Your task to perform on an android device: Go to accessibility settings Image 0: 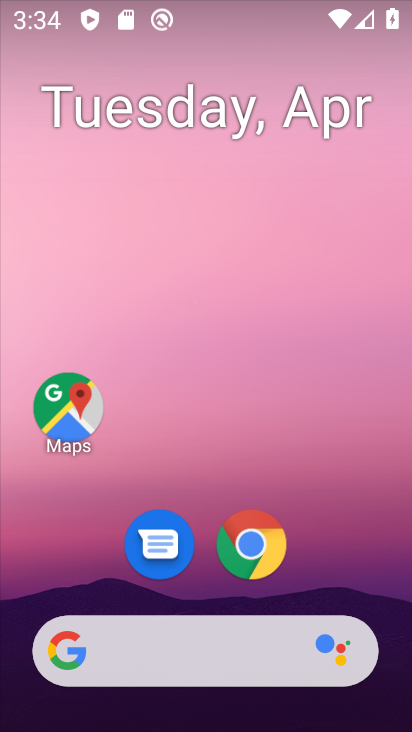
Step 0: drag from (305, 576) to (326, 60)
Your task to perform on an android device: Go to accessibility settings Image 1: 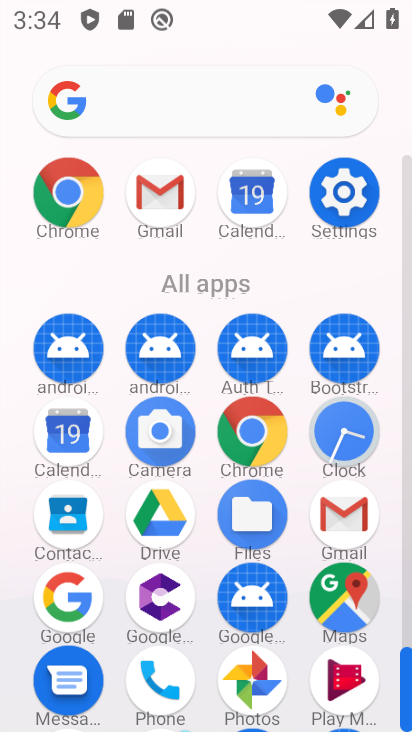
Step 1: click (340, 201)
Your task to perform on an android device: Go to accessibility settings Image 2: 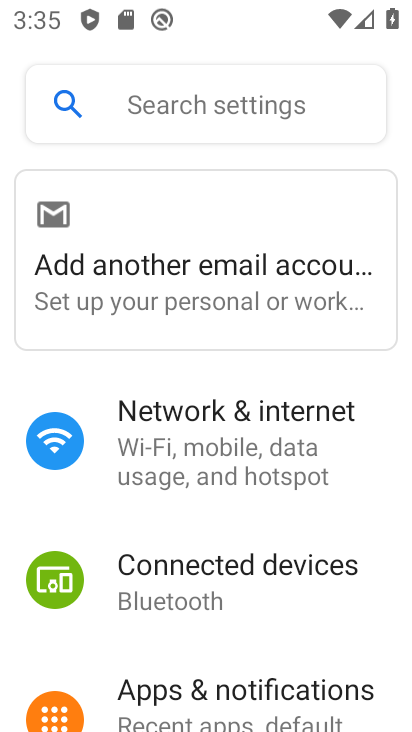
Step 2: drag from (189, 598) to (231, 263)
Your task to perform on an android device: Go to accessibility settings Image 3: 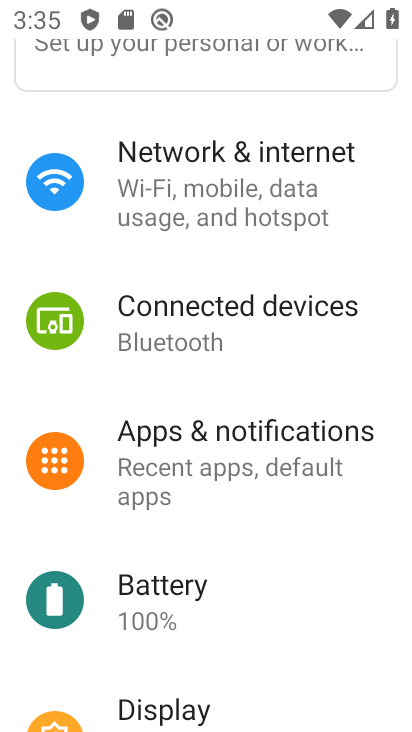
Step 3: drag from (246, 627) to (272, 228)
Your task to perform on an android device: Go to accessibility settings Image 4: 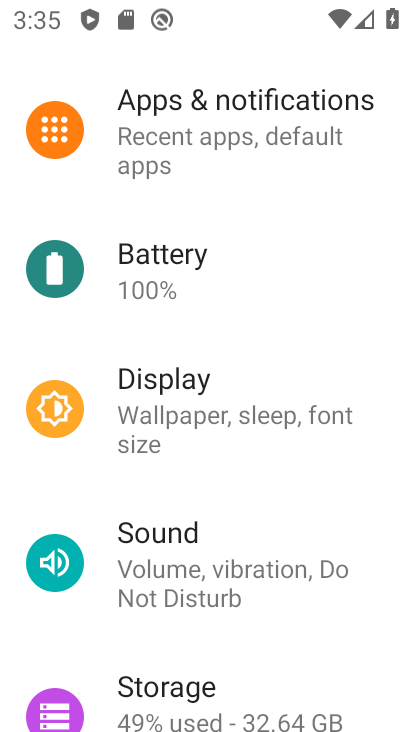
Step 4: drag from (291, 606) to (290, 227)
Your task to perform on an android device: Go to accessibility settings Image 5: 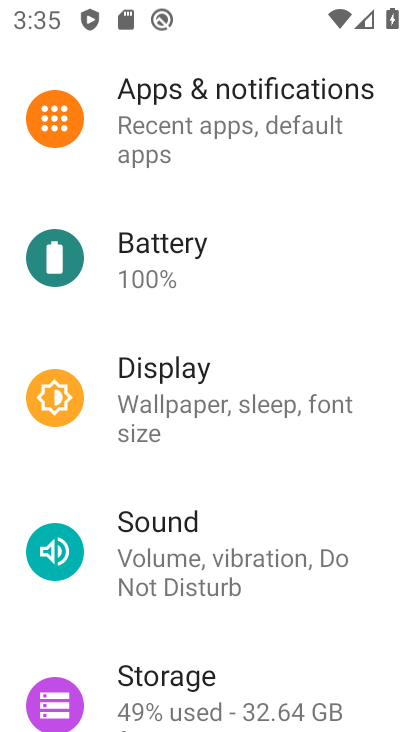
Step 5: drag from (233, 607) to (269, 242)
Your task to perform on an android device: Go to accessibility settings Image 6: 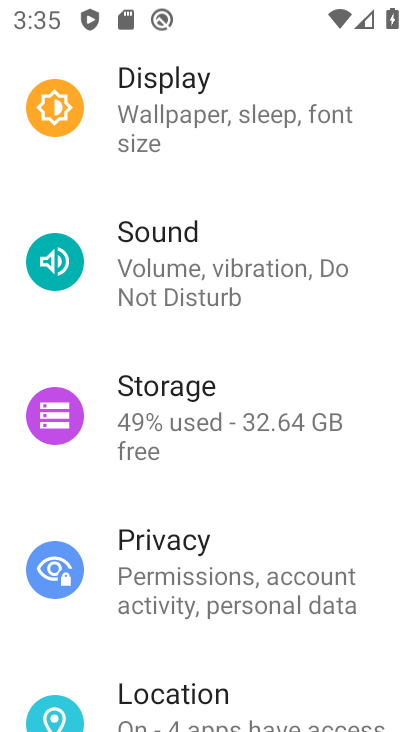
Step 6: drag from (236, 717) to (263, 270)
Your task to perform on an android device: Go to accessibility settings Image 7: 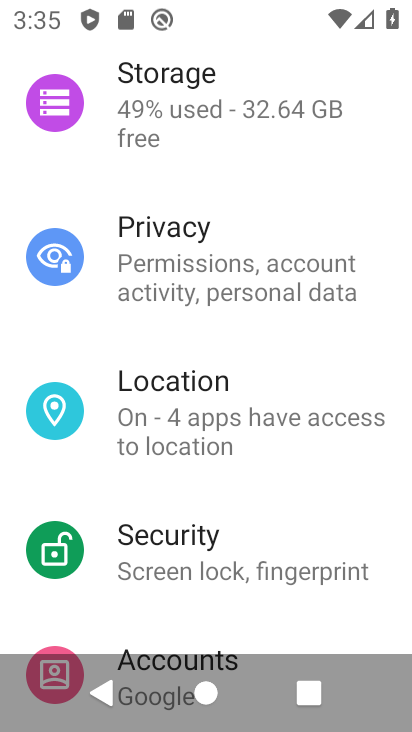
Step 7: drag from (252, 572) to (290, 170)
Your task to perform on an android device: Go to accessibility settings Image 8: 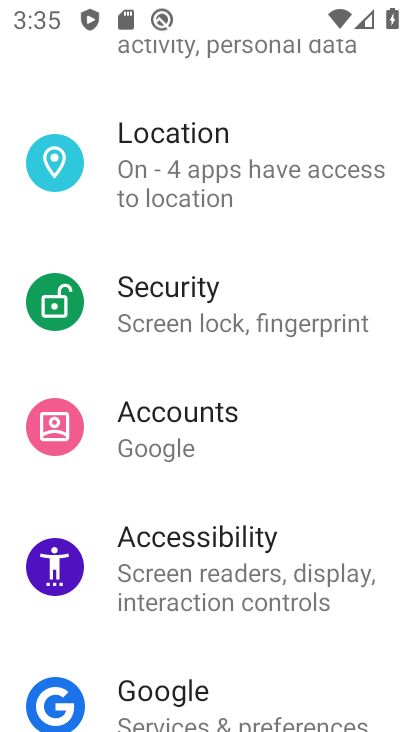
Step 8: click (228, 576)
Your task to perform on an android device: Go to accessibility settings Image 9: 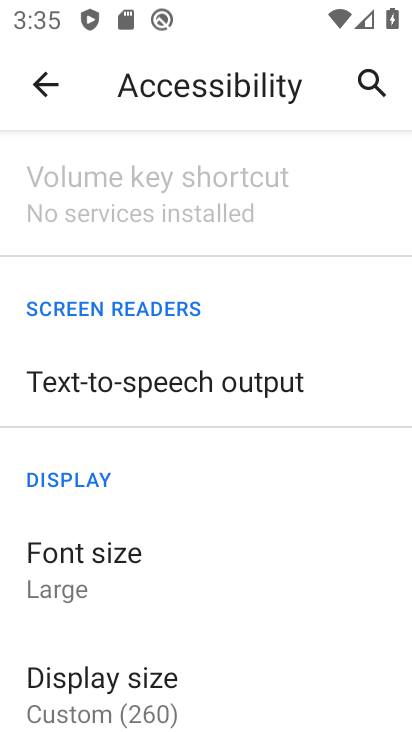
Step 9: task complete